Your task to perform on an android device: turn pop-ups off in chrome Image 0: 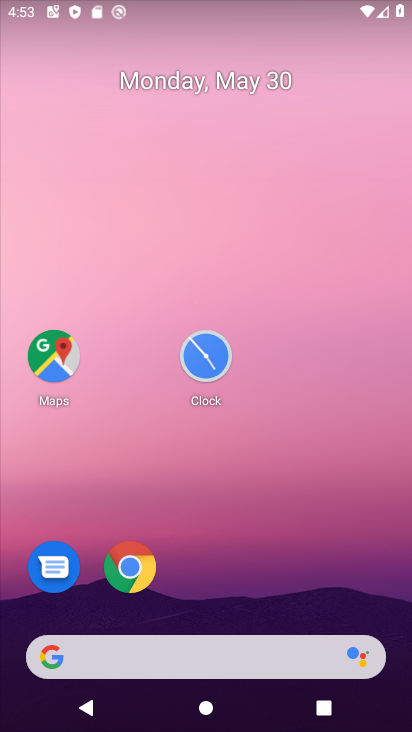
Step 0: drag from (272, 682) to (172, 62)
Your task to perform on an android device: turn pop-ups off in chrome Image 1: 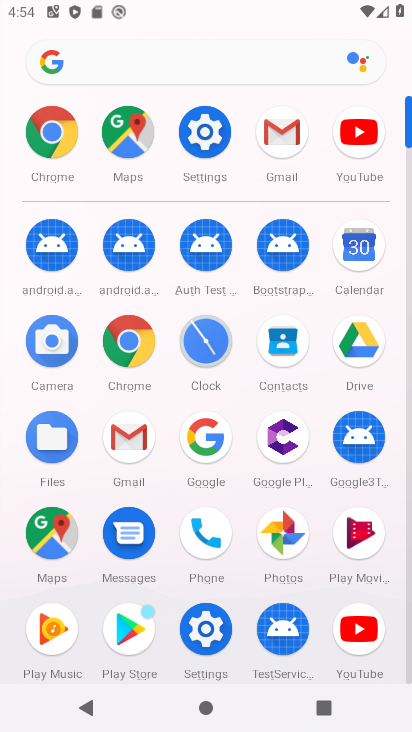
Step 1: click (55, 123)
Your task to perform on an android device: turn pop-ups off in chrome Image 2: 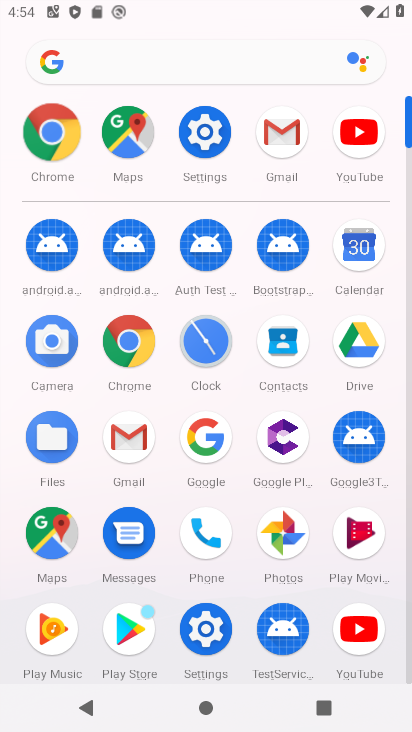
Step 2: click (54, 122)
Your task to perform on an android device: turn pop-ups off in chrome Image 3: 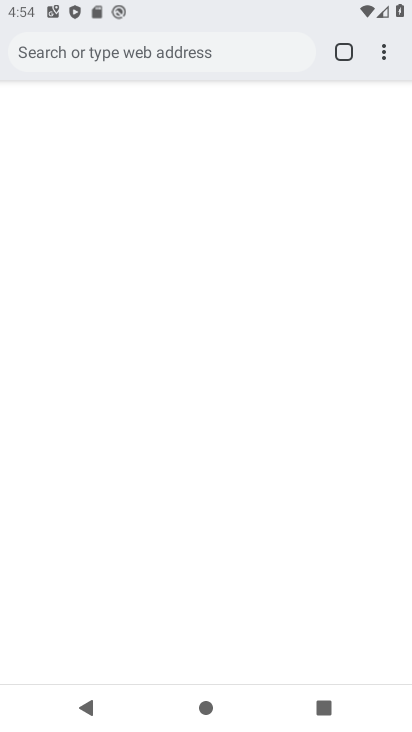
Step 3: click (53, 124)
Your task to perform on an android device: turn pop-ups off in chrome Image 4: 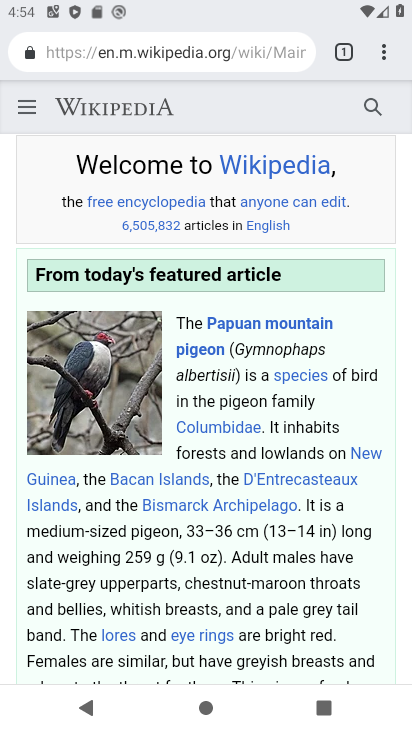
Step 4: drag from (382, 58) to (186, 607)
Your task to perform on an android device: turn pop-ups off in chrome Image 5: 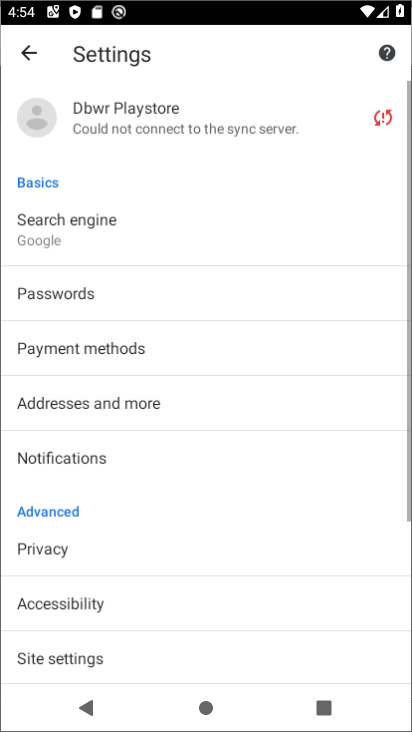
Step 5: click (219, 604)
Your task to perform on an android device: turn pop-ups off in chrome Image 6: 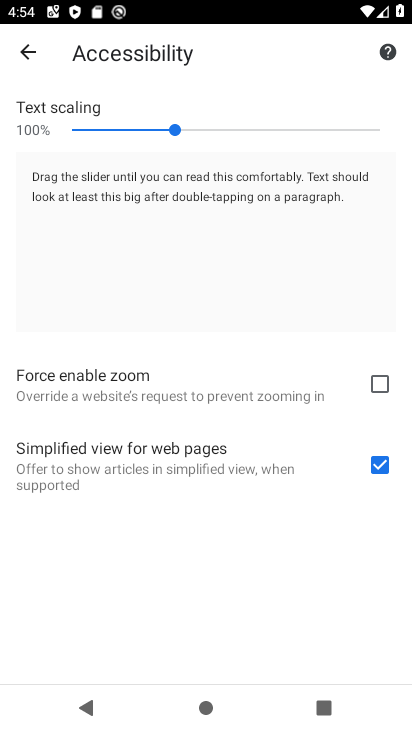
Step 6: click (24, 46)
Your task to perform on an android device: turn pop-ups off in chrome Image 7: 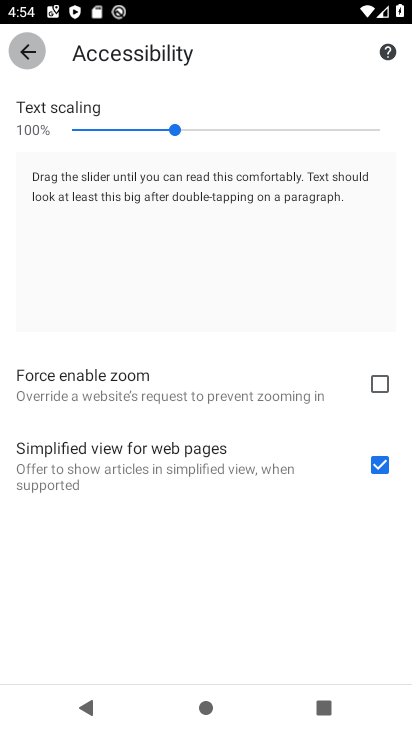
Step 7: click (24, 46)
Your task to perform on an android device: turn pop-ups off in chrome Image 8: 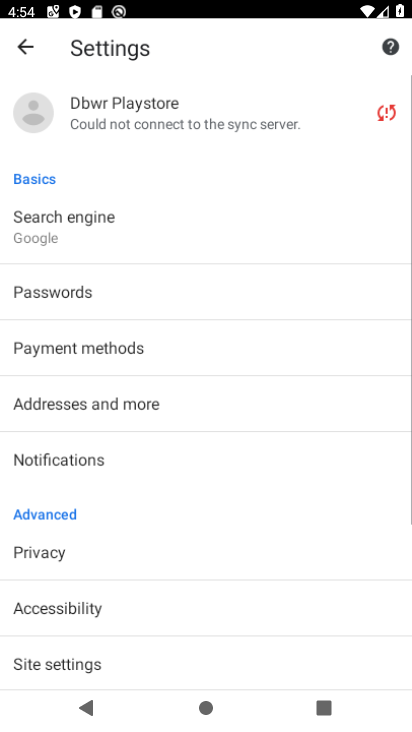
Step 8: click (25, 45)
Your task to perform on an android device: turn pop-ups off in chrome Image 9: 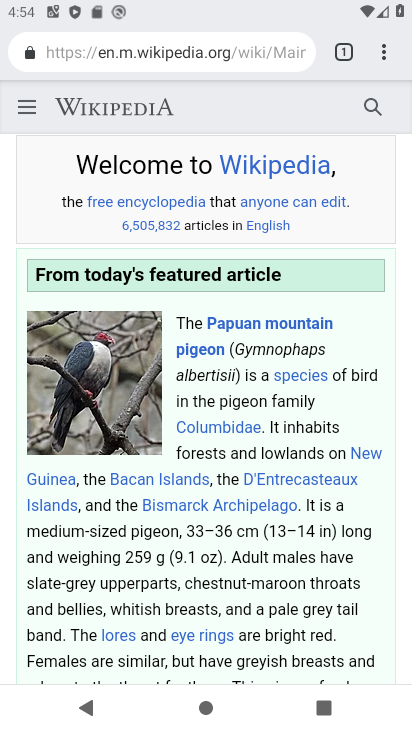
Step 9: drag from (50, 548) to (86, 81)
Your task to perform on an android device: turn pop-ups off in chrome Image 10: 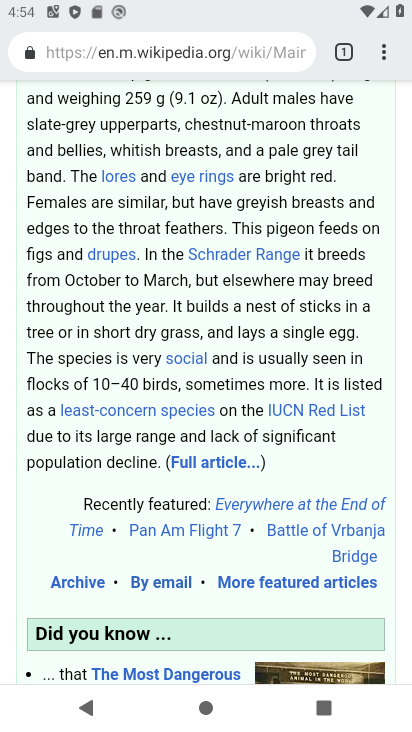
Step 10: click (377, 55)
Your task to perform on an android device: turn pop-ups off in chrome Image 11: 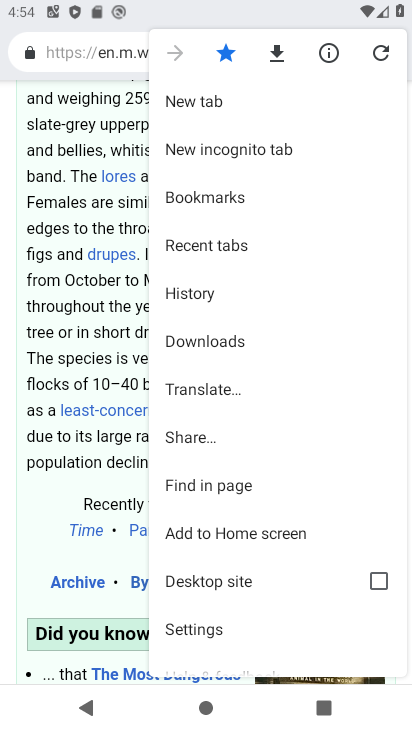
Step 11: click (192, 629)
Your task to perform on an android device: turn pop-ups off in chrome Image 12: 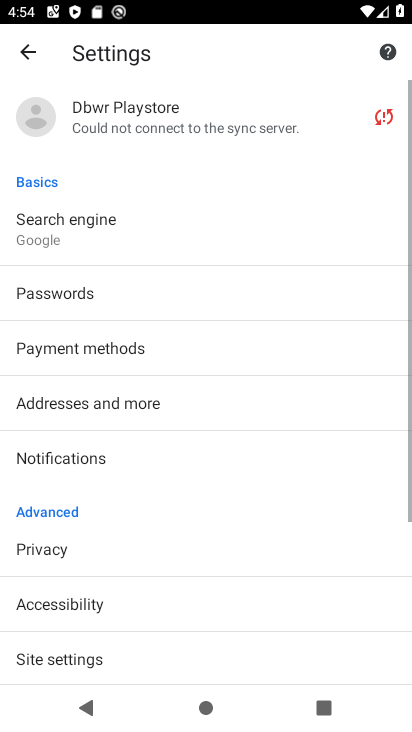
Step 12: drag from (136, 535) to (129, 174)
Your task to perform on an android device: turn pop-ups off in chrome Image 13: 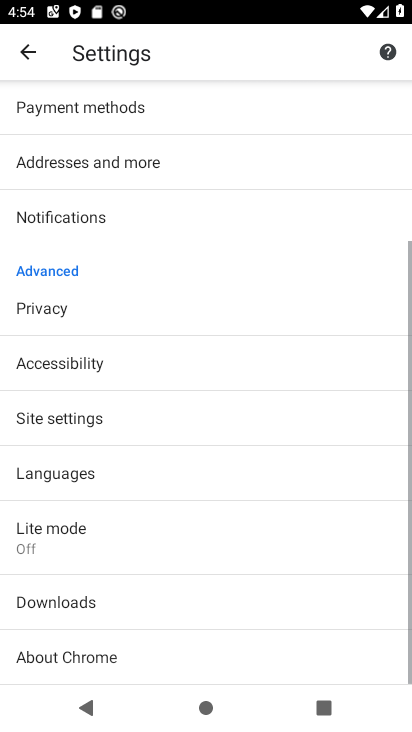
Step 13: drag from (142, 402) to (125, 164)
Your task to perform on an android device: turn pop-ups off in chrome Image 14: 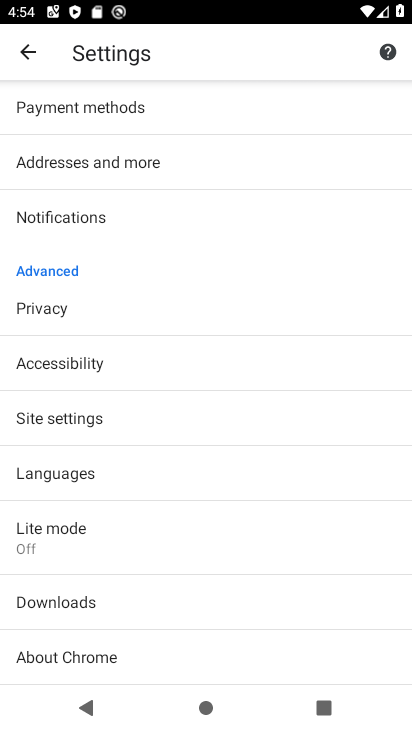
Step 14: click (48, 422)
Your task to perform on an android device: turn pop-ups off in chrome Image 15: 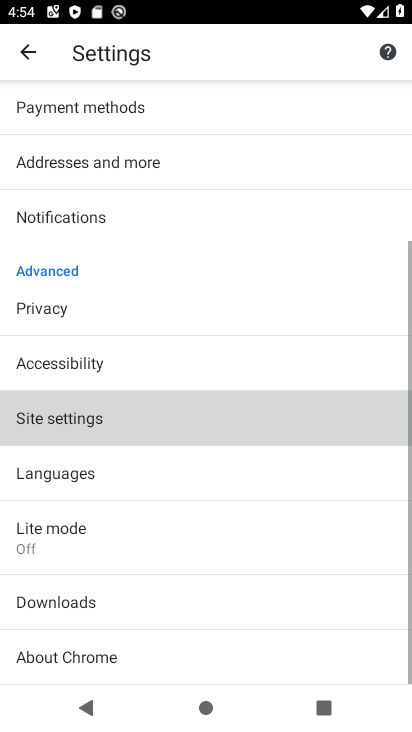
Step 15: click (48, 421)
Your task to perform on an android device: turn pop-ups off in chrome Image 16: 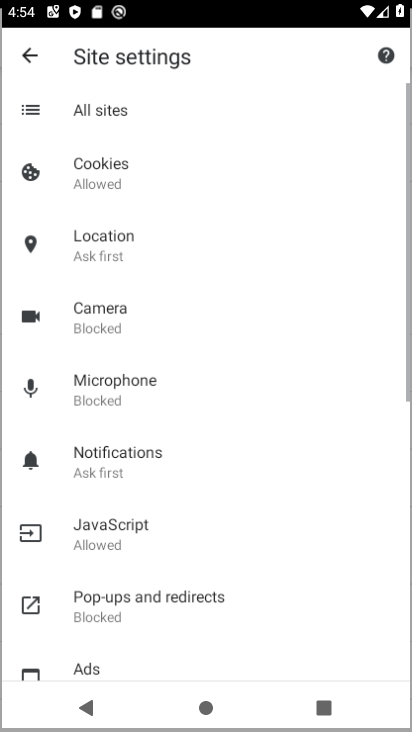
Step 16: click (48, 421)
Your task to perform on an android device: turn pop-ups off in chrome Image 17: 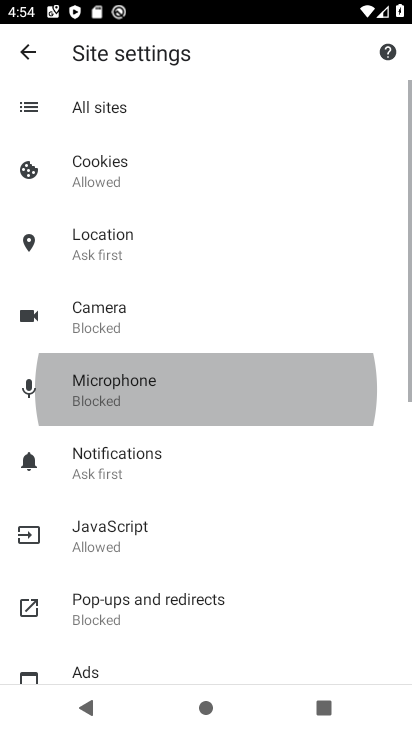
Step 17: click (49, 420)
Your task to perform on an android device: turn pop-ups off in chrome Image 18: 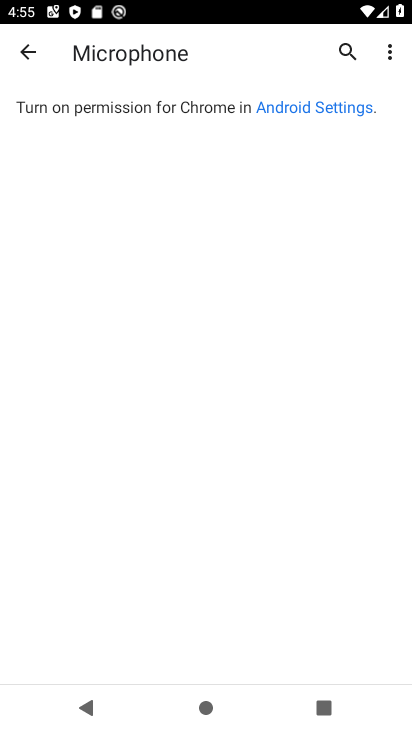
Step 18: click (22, 48)
Your task to perform on an android device: turn pop-ups off in chrome Image 19: 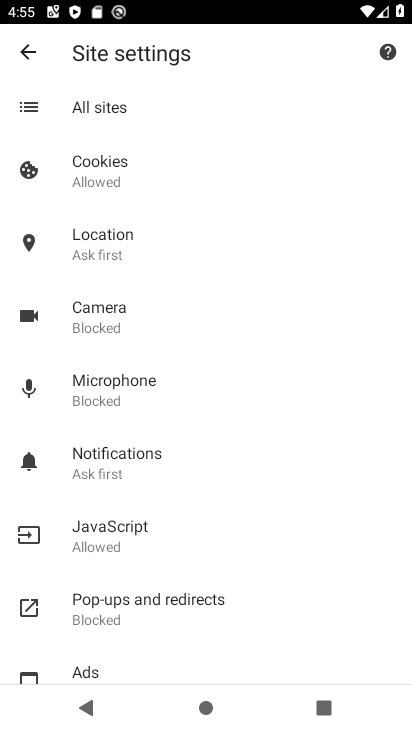
Step 19: click (91, 600)
Your task to perform on an android device: turn pop-ups off in chrome Image 20: 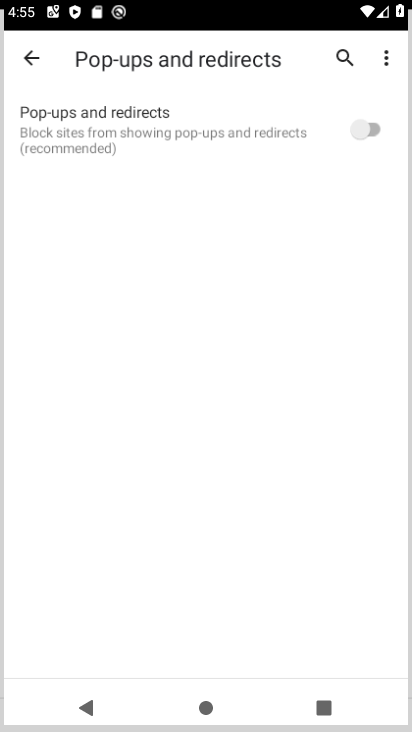
Step 20: click (92, 601)
Your task to perform on an android device: turn pop-ups off in chrome Image 21: 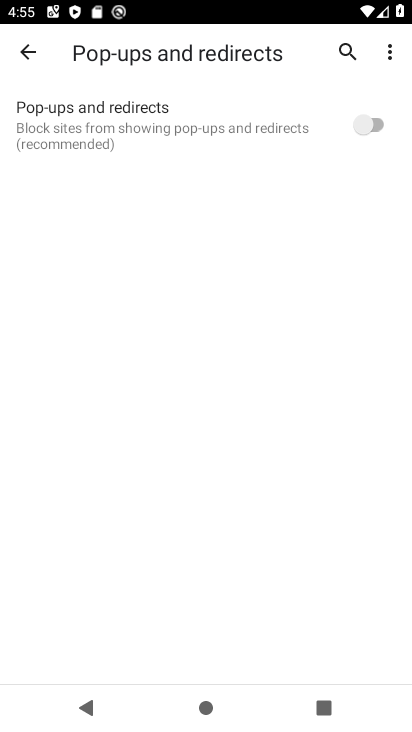
Step 21: click (364, 123)
Your task to perform on an android device: turn pop-ups off in chrome Image 22: 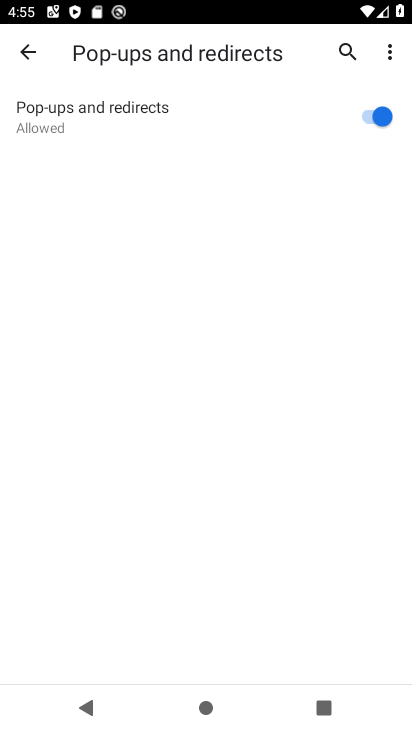
Step 22: task complete